Your task to perform on an android device: make emails show in primary in the gmail app Image 0: 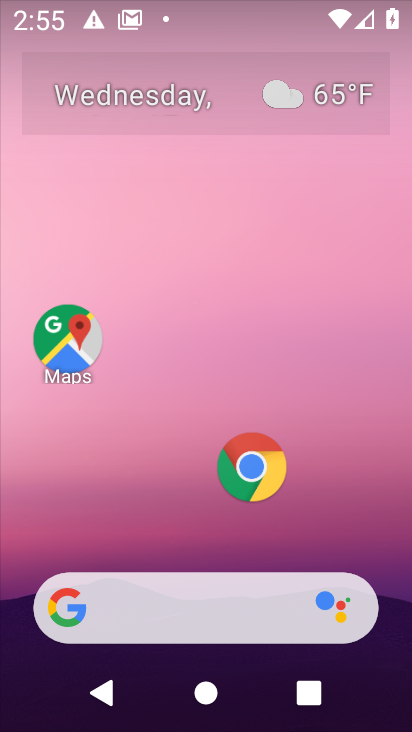
Step 0: drag from (160, 522) to (202, 216)
Your task to perform on an android device: make emails show in primary in the gmail app Image 1: 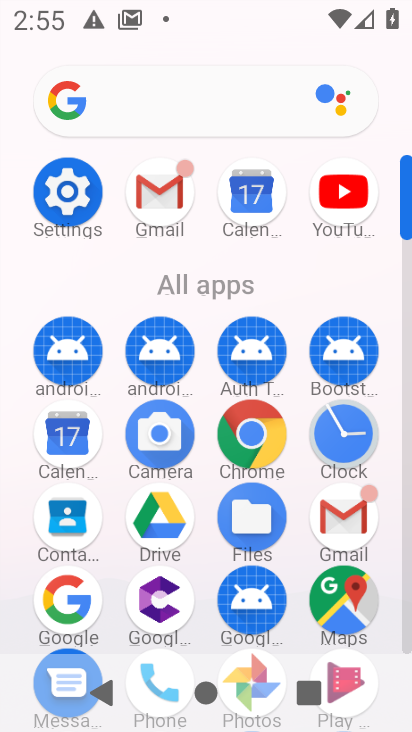
Step 1: click (166, 203)
Your task to perform on an android device: make emails show in primary in the gmail app Image 2: 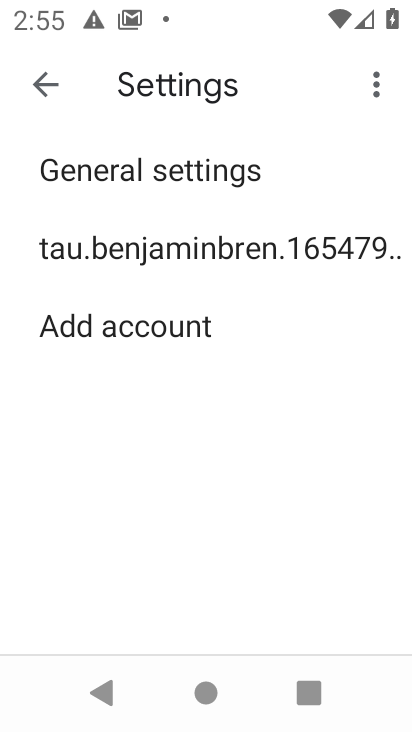
Step 2: task complete